Your task to perform on an android device: What is the capital of England? Image 0: 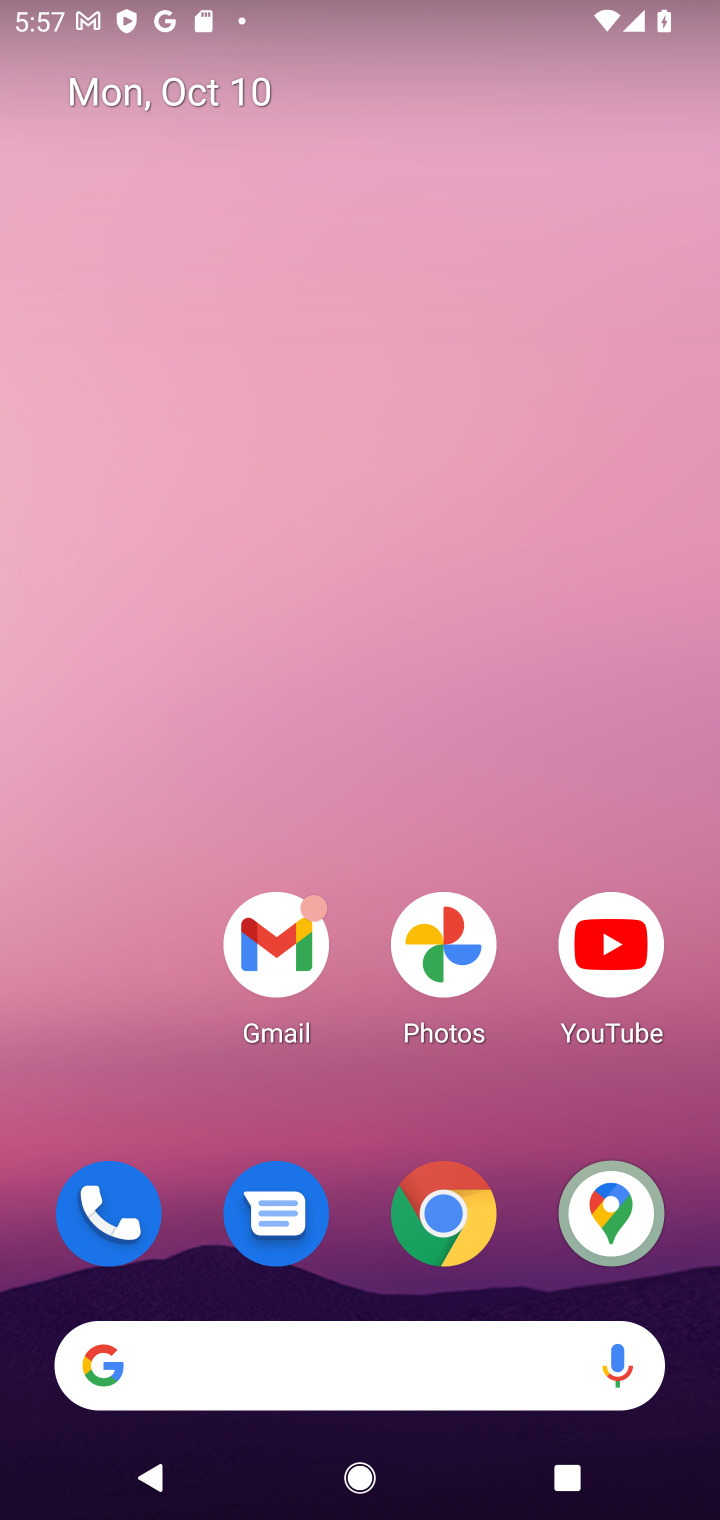
Step 0: click (359, 1375)
Your task to perform on an android device: What is the capital of England? Image 1: 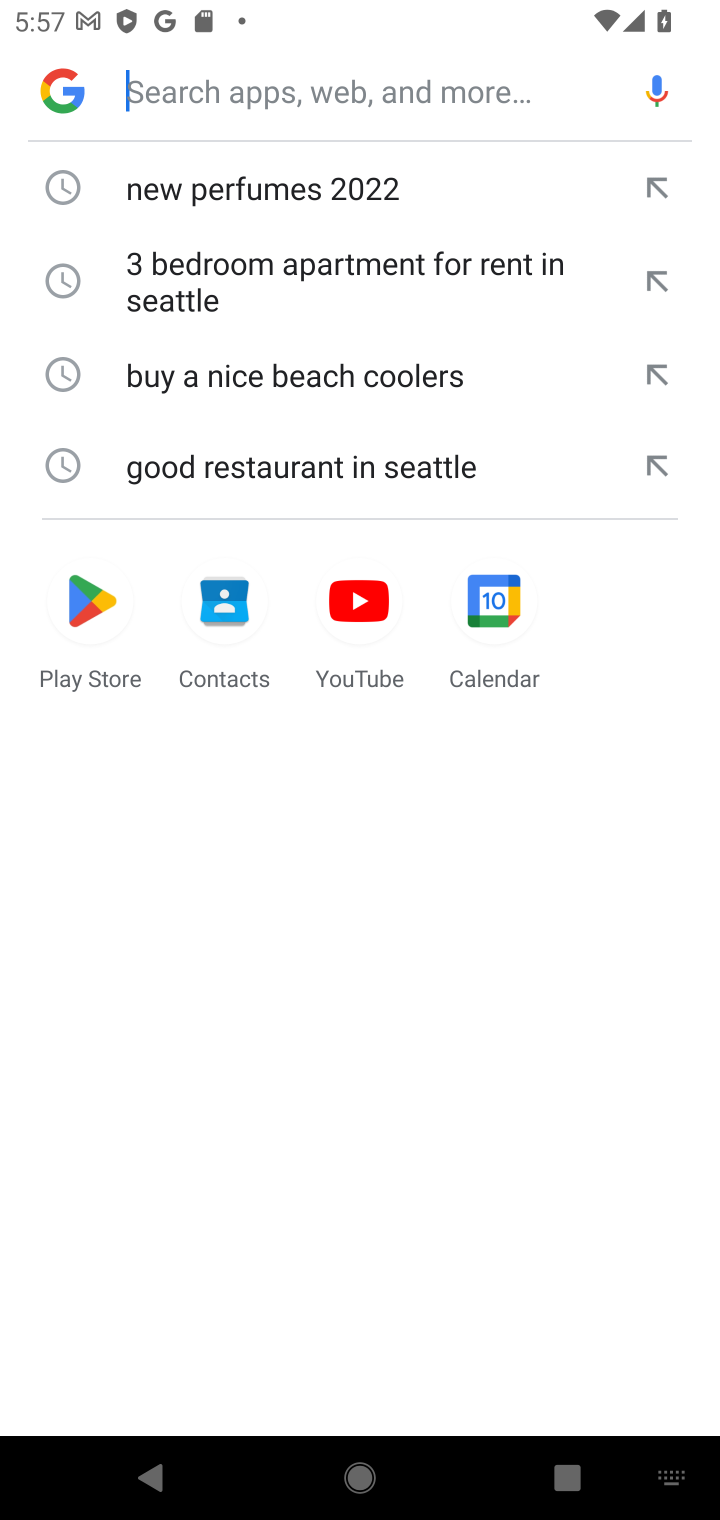
Step 1: type "capital of England"
Your task to perform on an android device: What is the capital of England? Image 2: 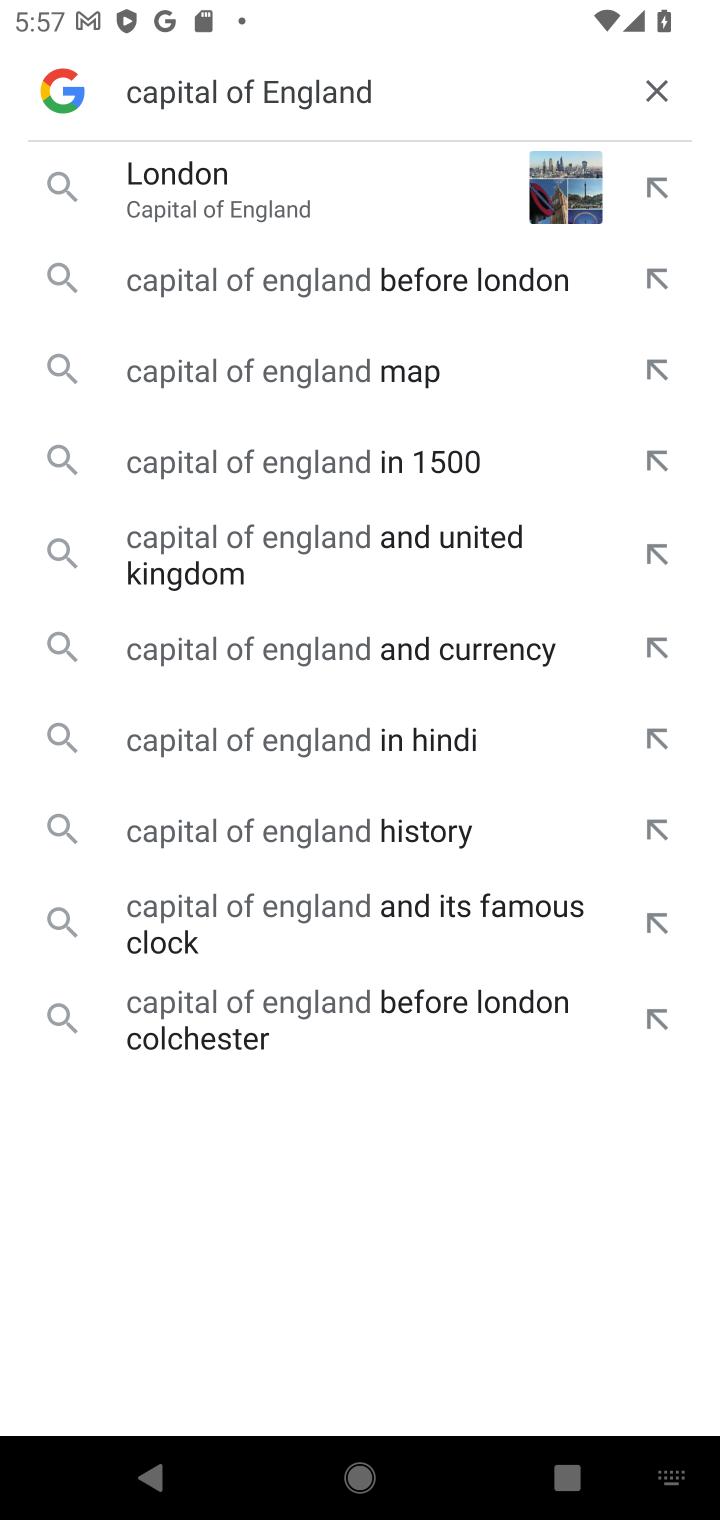
Step 2: click (328, 190)
Your task to perform on an android device: What is the capital of England? Image 3: 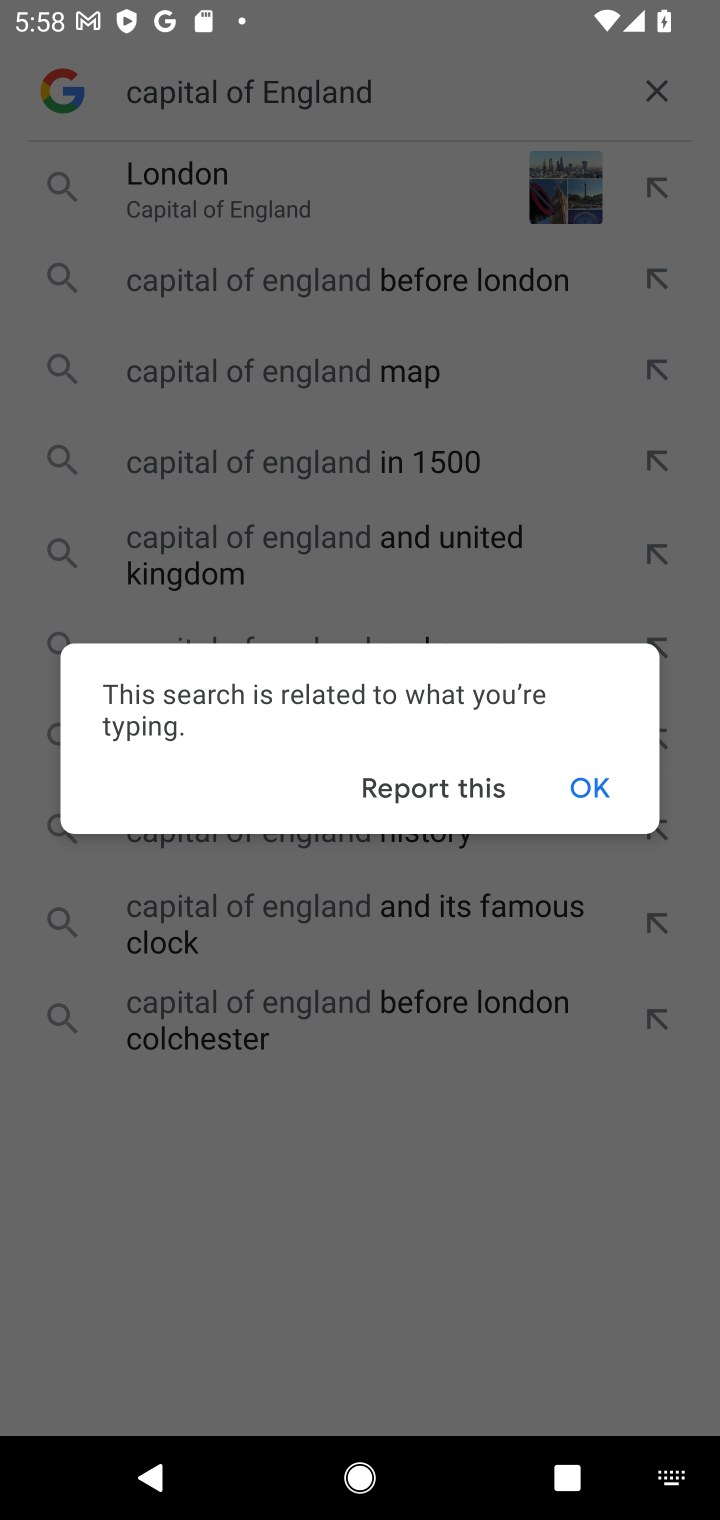
Step 3: click (620, 766)
Your task to perform on an android device: What is the capital of England? Image 4: 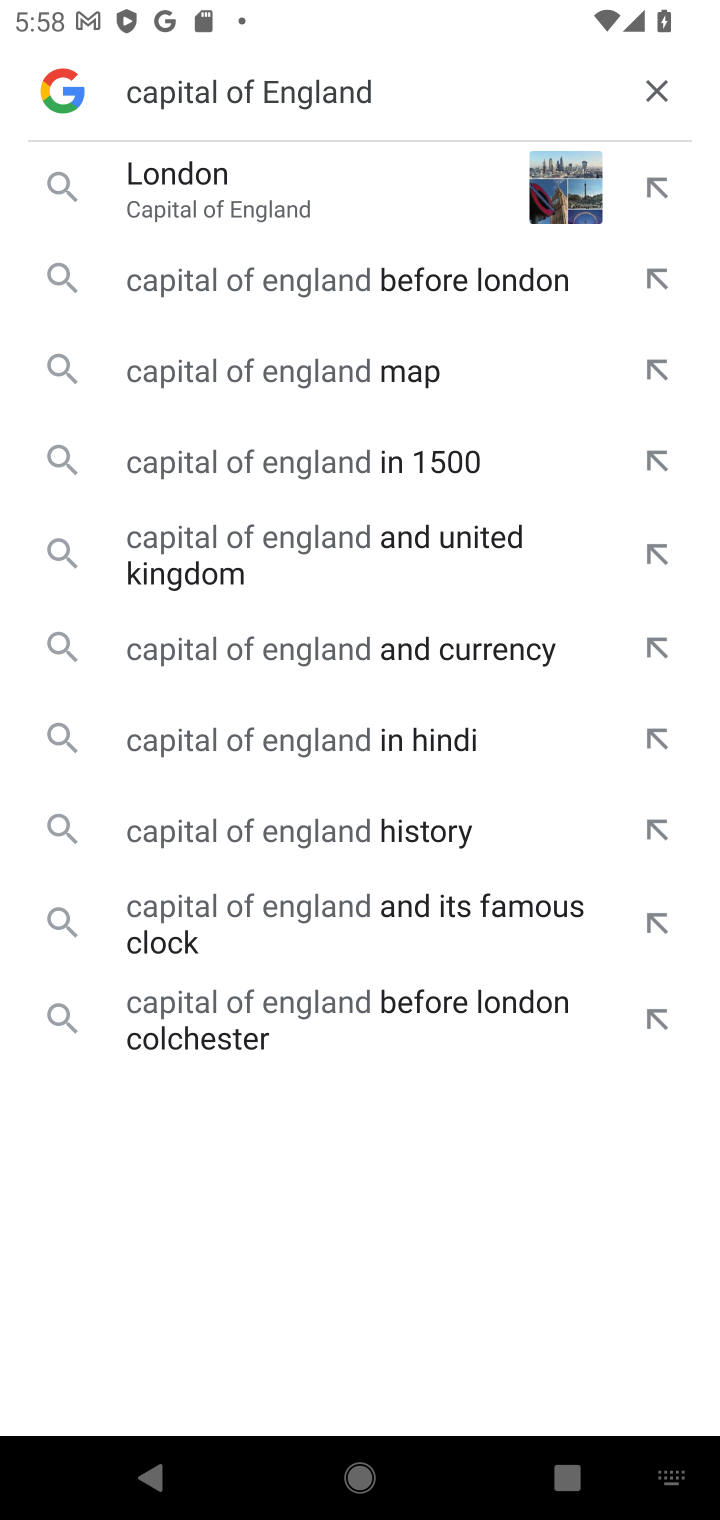
Step 4: click (238, 186)
Your task to perform on an android device: What is the capital of England? Image 5: 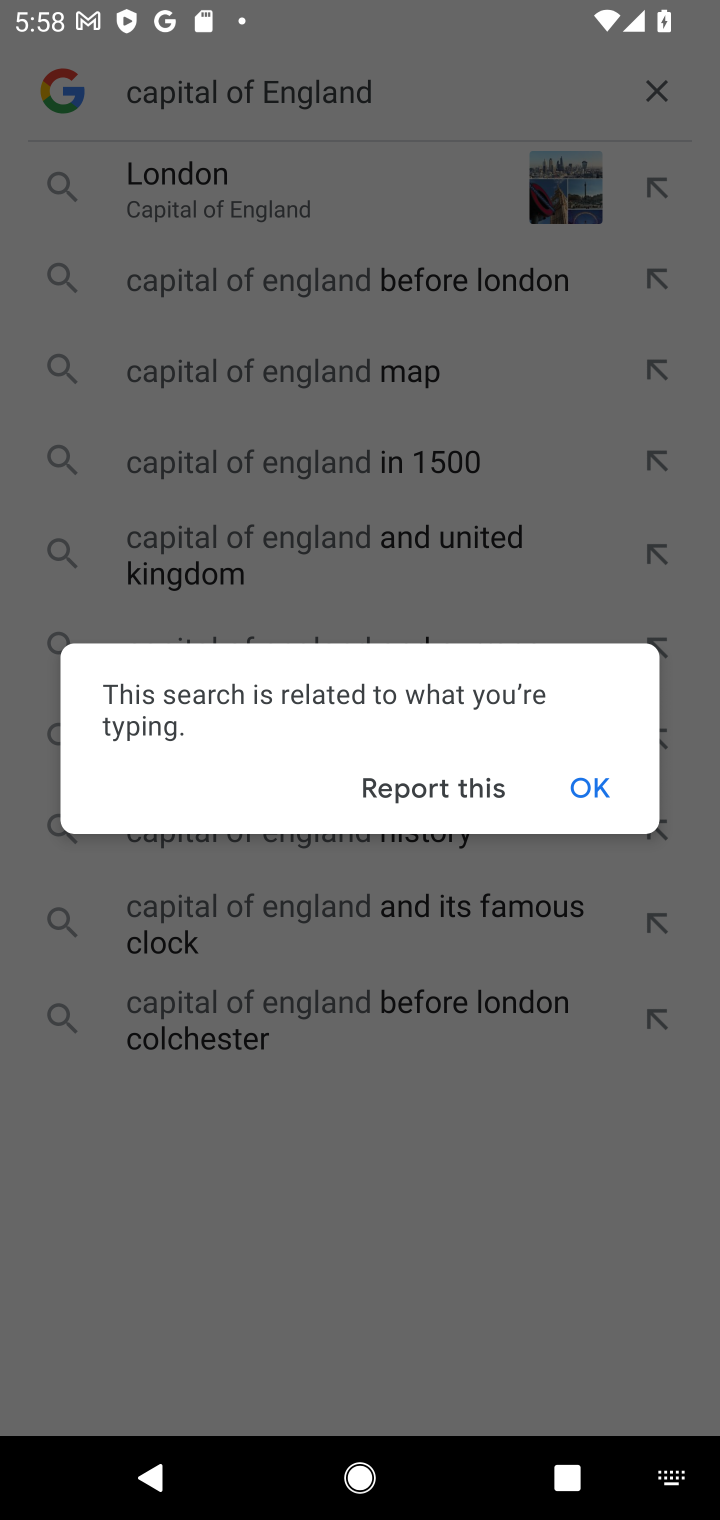
Step 5: click (574, 782)
Your task to perform on an android device: What is the capital of England? Image 6: 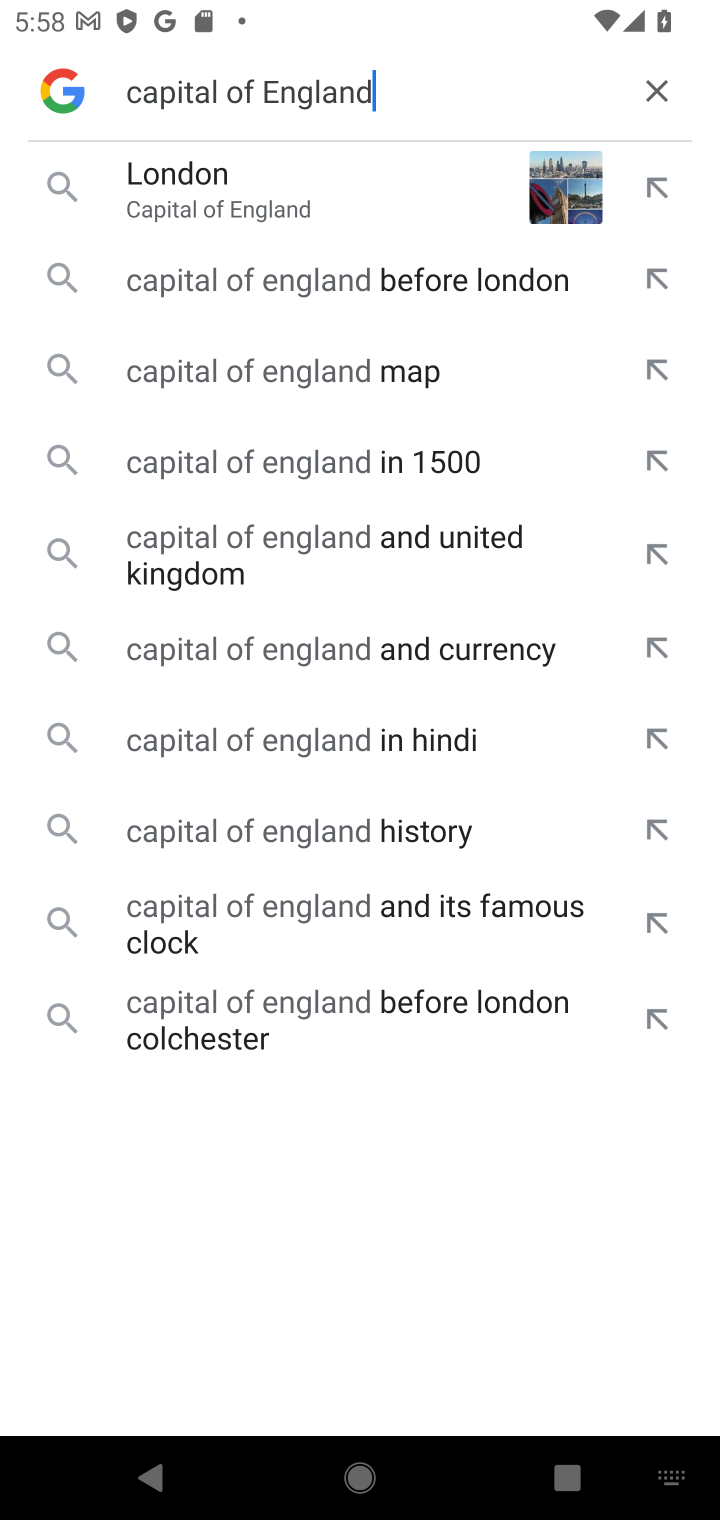
Step 6: click (158, 188)
Your task to perform on an android device: What is the capital of England? Image 7: 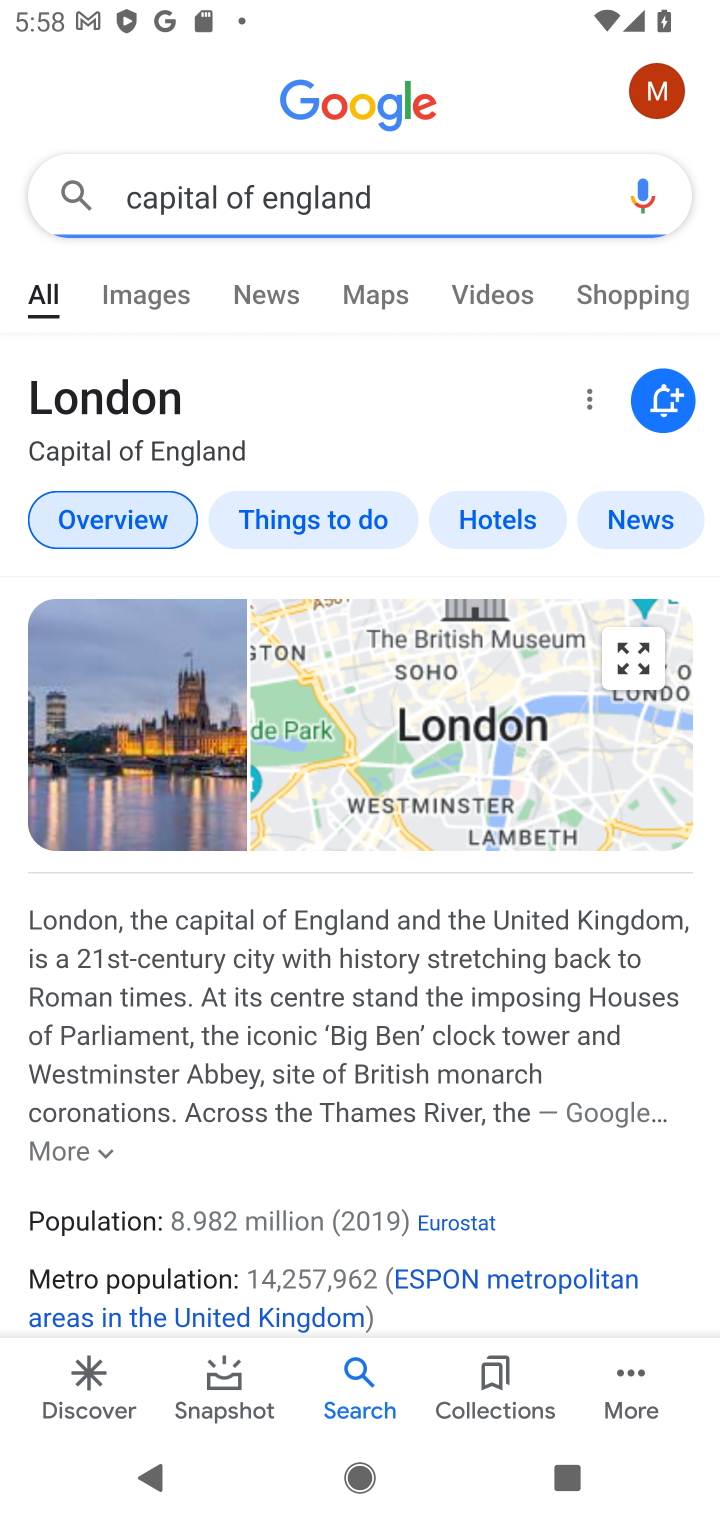
Step 7: task complete